Your task to perform on an android device: What's the weather today? Image 0: 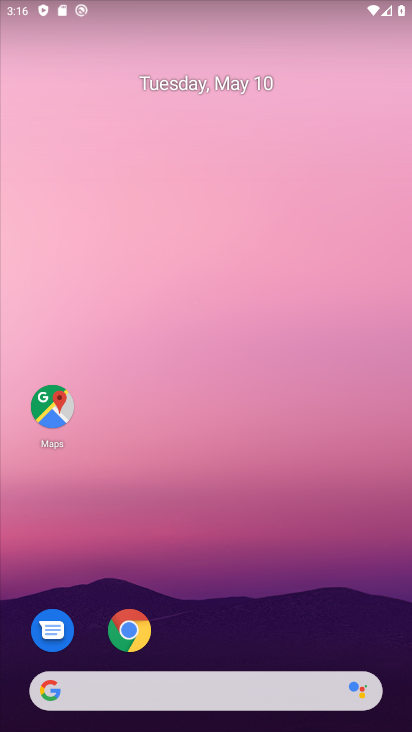
Step 0: click (178, 687)
Your task to perform on an android device: What's the weather today? Image 1: 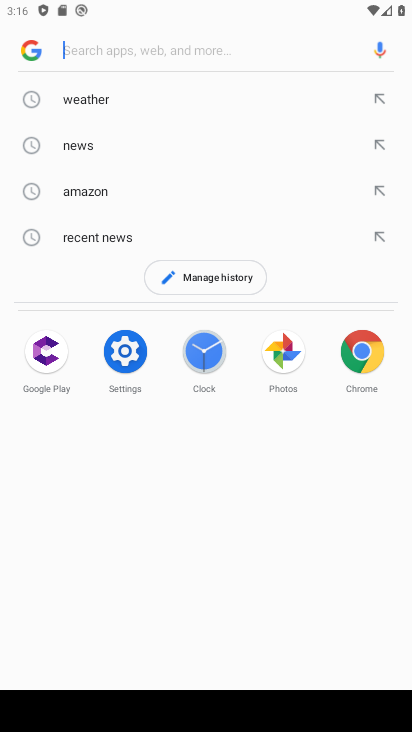
Step 1: click (100, 110)
Your task to perform on an android device: What's the weather today? Image 2: 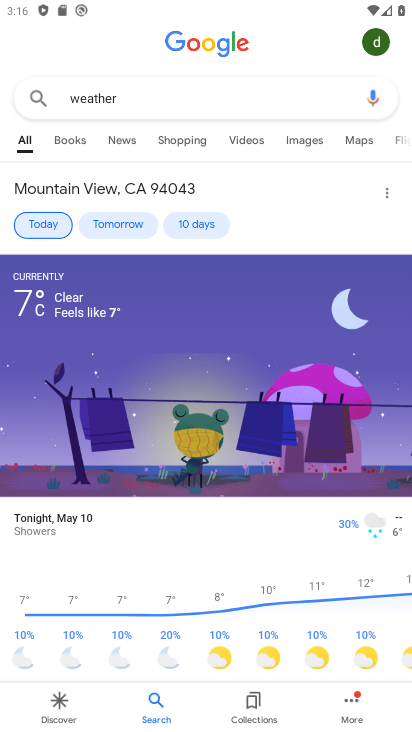
Step 2: task complete